Your task to perform on an android device: set default search engine in the chrome app Image 0: 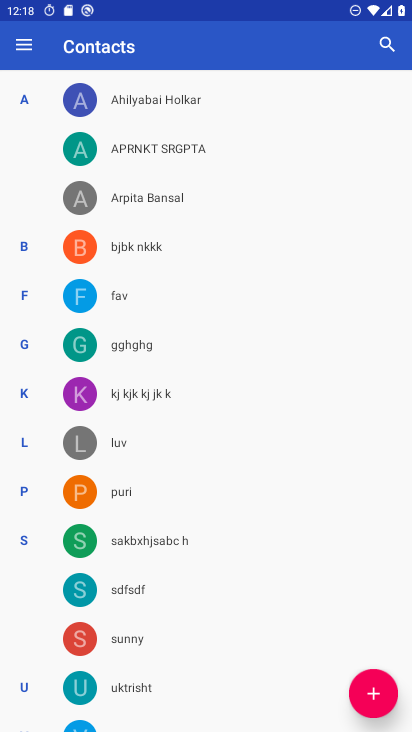
Step 0: press home button
Your task to perform on an android device: set default search engine in the chrome app Image 1: 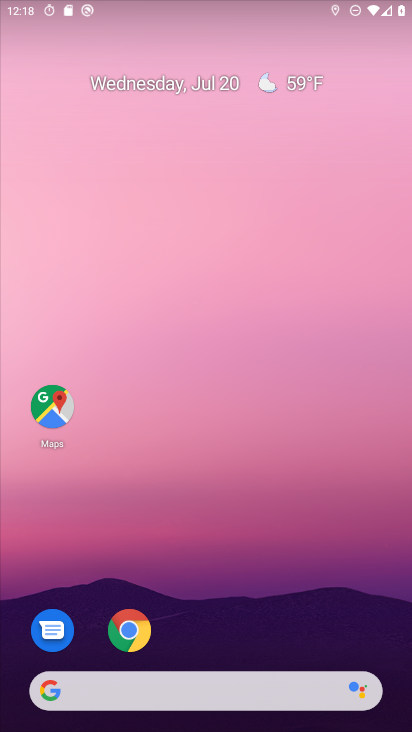
Step 1: drag from (250, 677) to (222, 3)
Your task to perform on an android device: set default search engine in the chrome app Image 2: 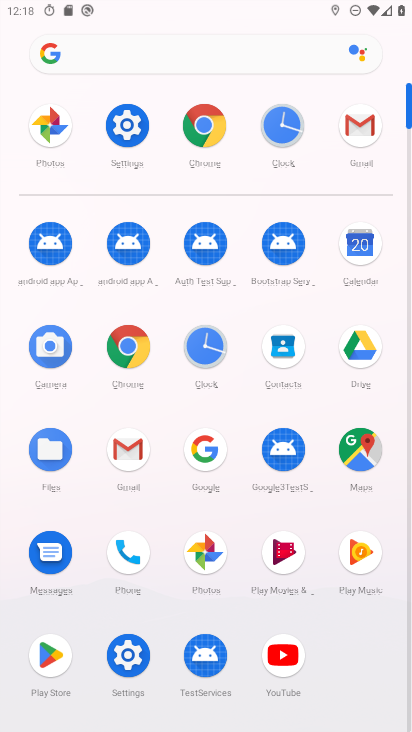
Step 2: click (117, 343)
Your task to perform on an android device: set default search engine in the chrome app Image 3: 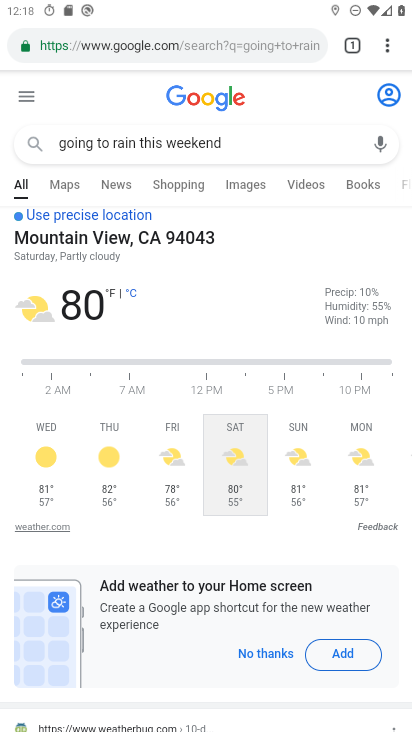
Step 3: drag from (385, 61) to (239, 522)
Your task to perform on an android device: set default search engine in the chrome app Image 4: 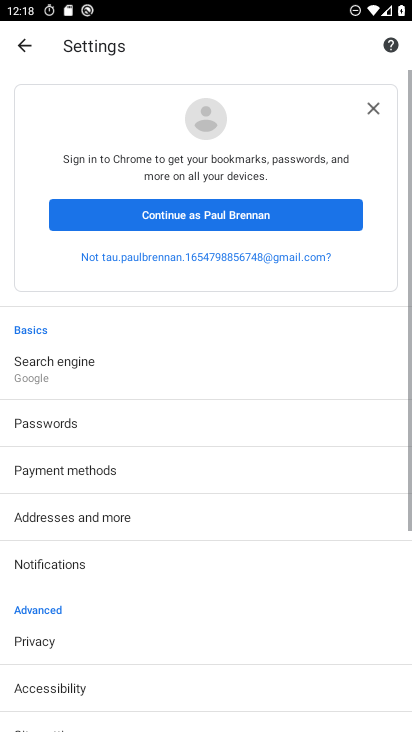
Step 4: click (88, 364)
Your task to perform on an android device: set default search engine in the chrome app Image 5: 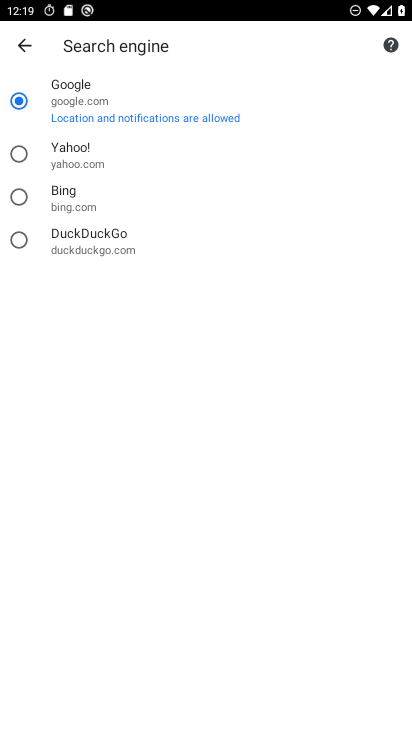
Step 5: task complete